Your task to perform on an android device: Show me recent news Image 0: 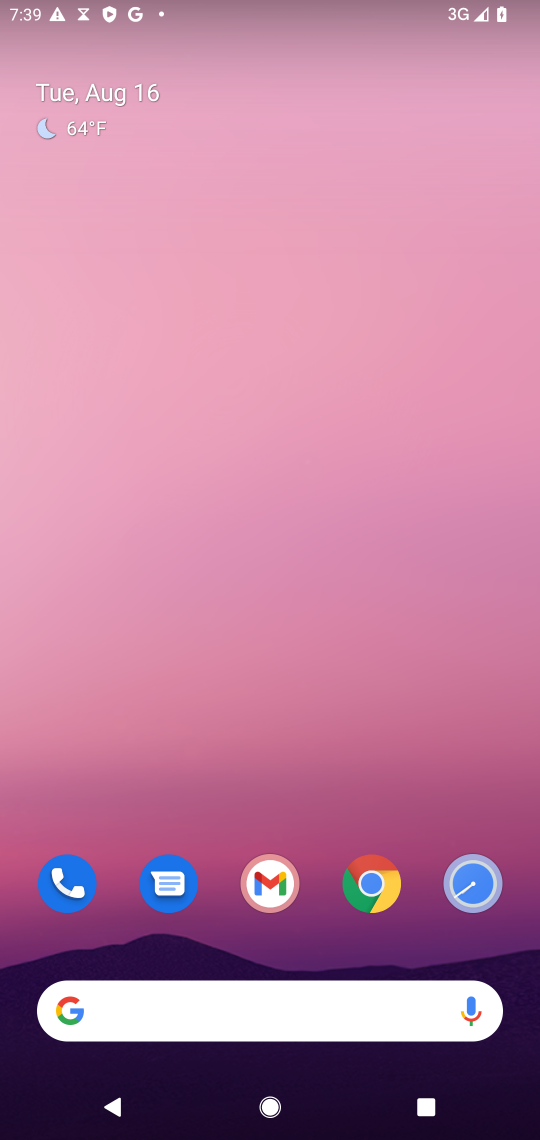
Step 0: drag from (237, 998) to (318, 208)
Your task to perform on an android device: Show me recent news Image 1: 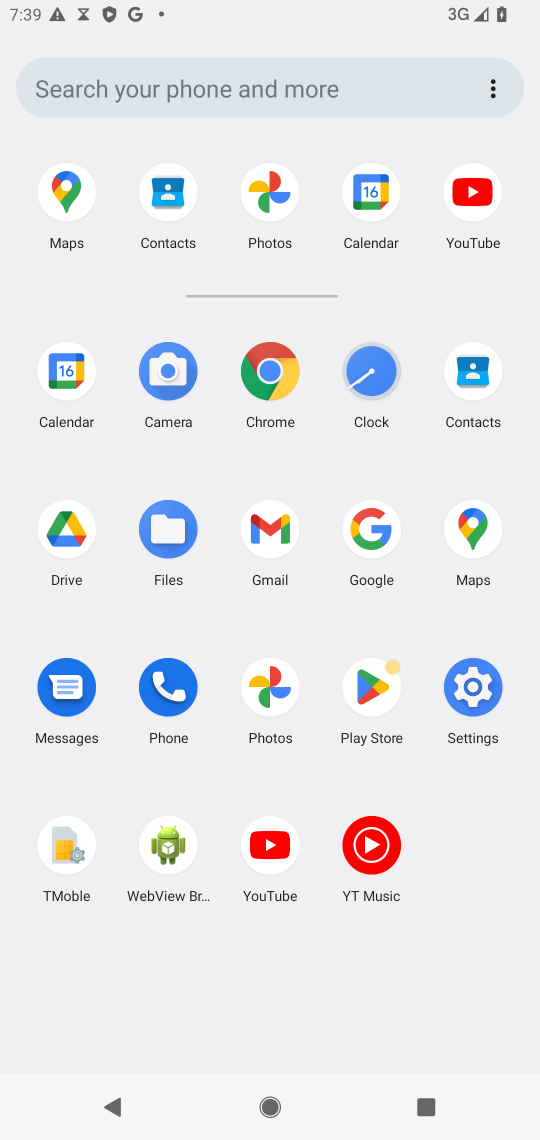
Step 1: click (367, 535)
Your task to perform on an android device: Show me recent news Image 2: 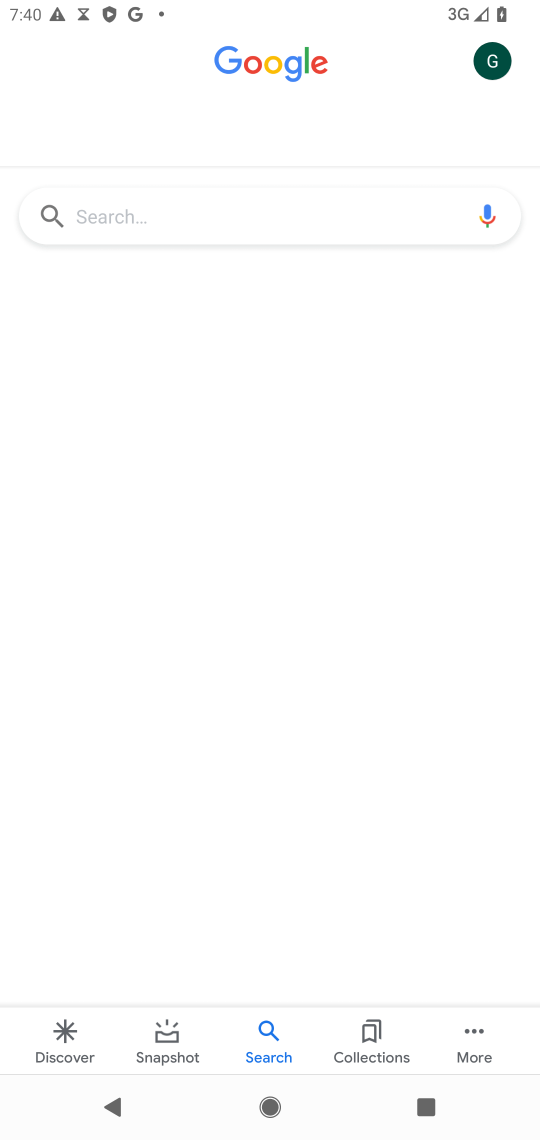
Step 2: click (293, 235)
Your task to perform on an android device: Show me recent news Image 3: 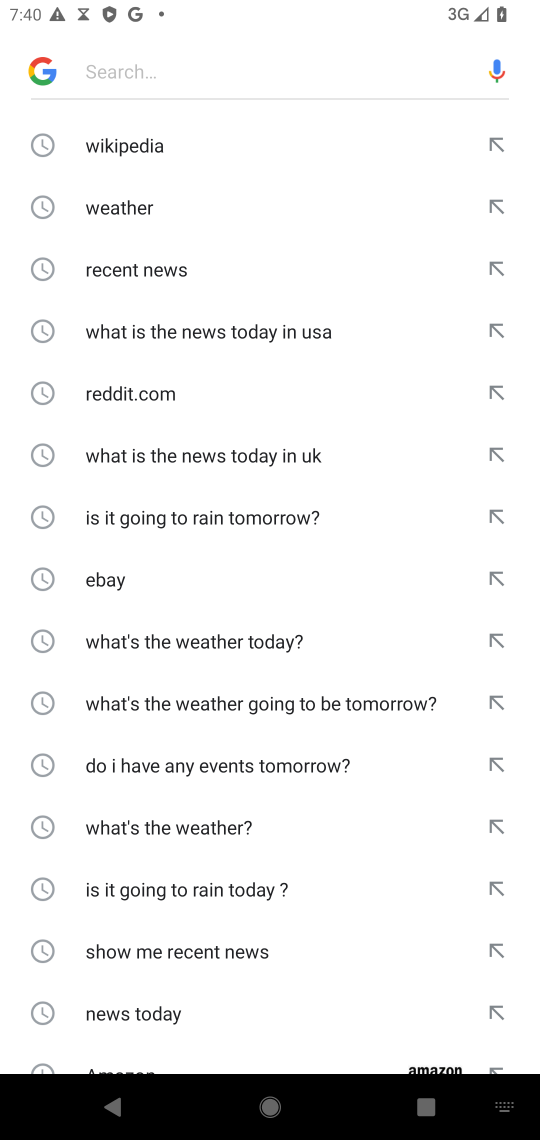
Step 3: click (176, 274)
Your task to perform on an android device: Show me recent news Image 4: 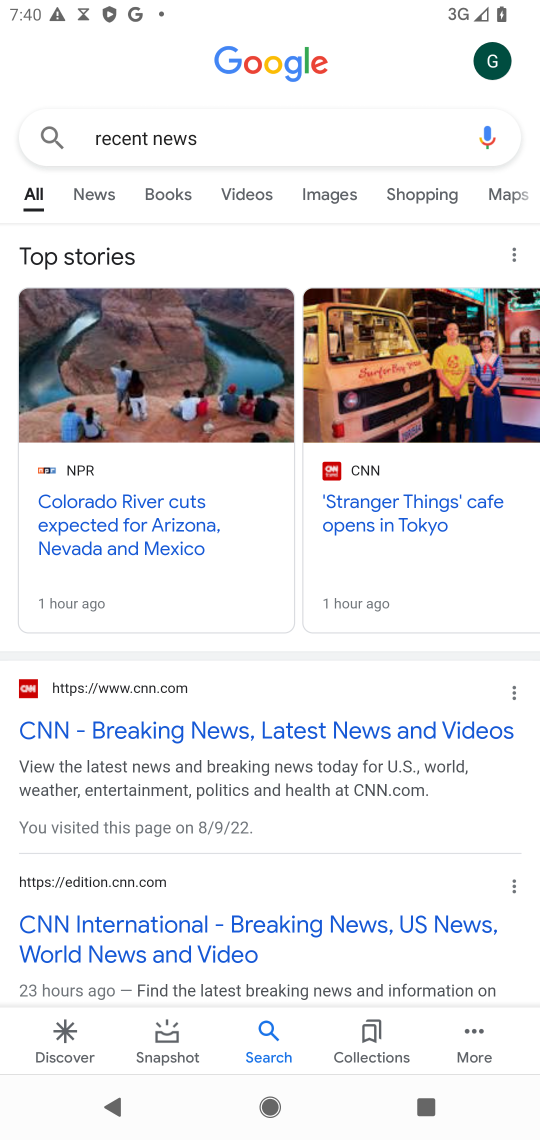
Step 4: click (137, 547)
Your task to perform on an android device: Show me recent news Image 5: 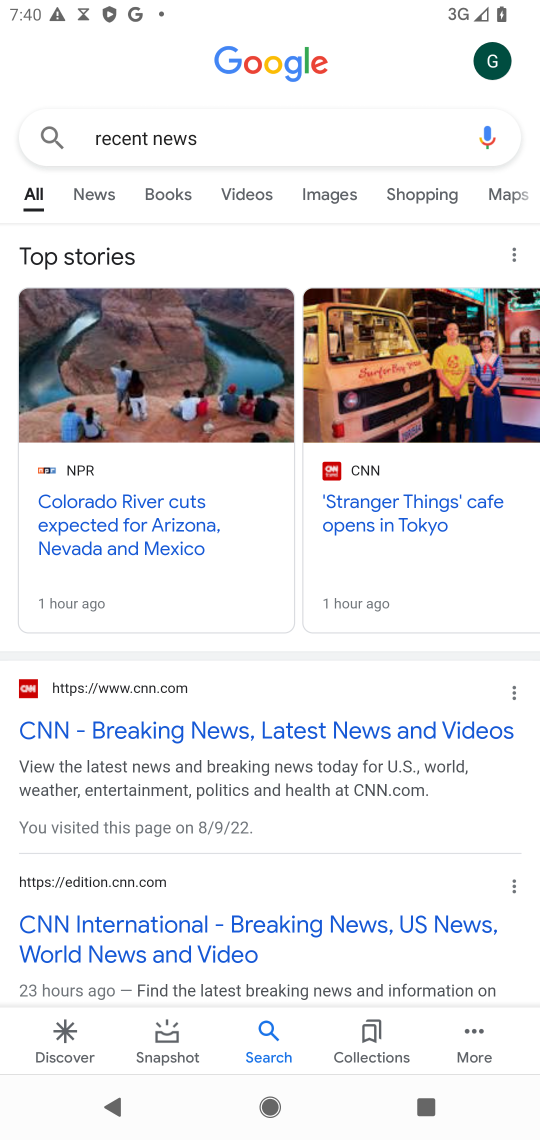
Step 5: click (131, 539)
Your task to perform on an android device: Show me recent news Image 6: 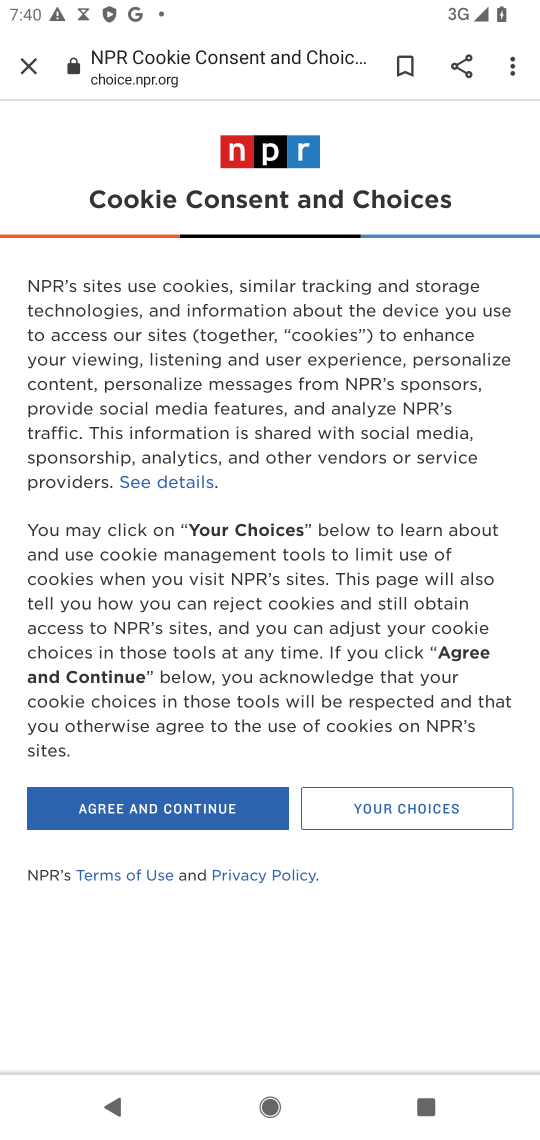
Step 6: click (180, 821)
Your task to perform on an android device: Show me recent news Image 7: 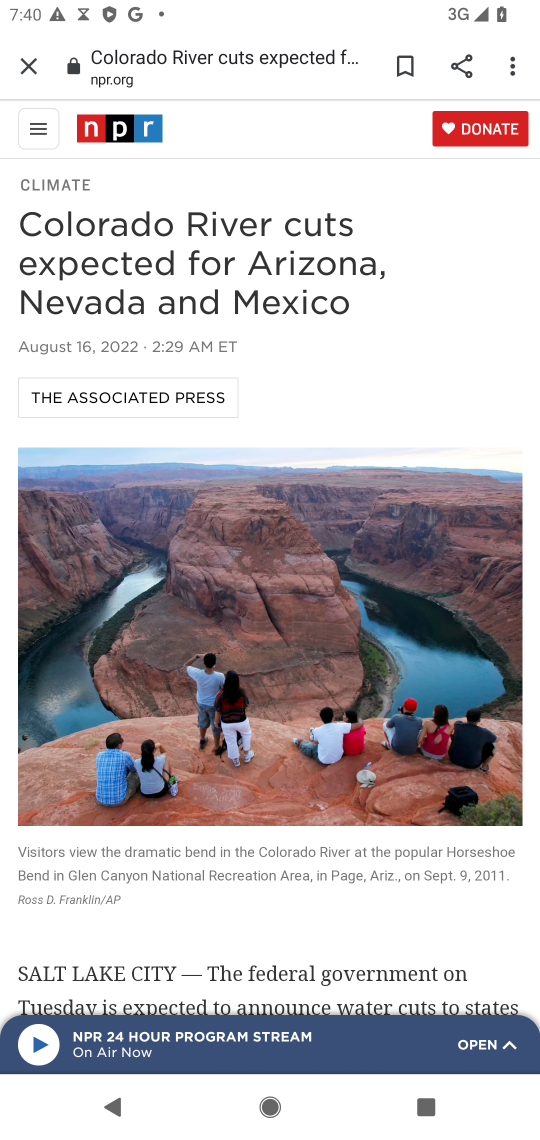
Step 7: task complete